Your task to perform on an android device: Do I have any events this weekend? Image 0: 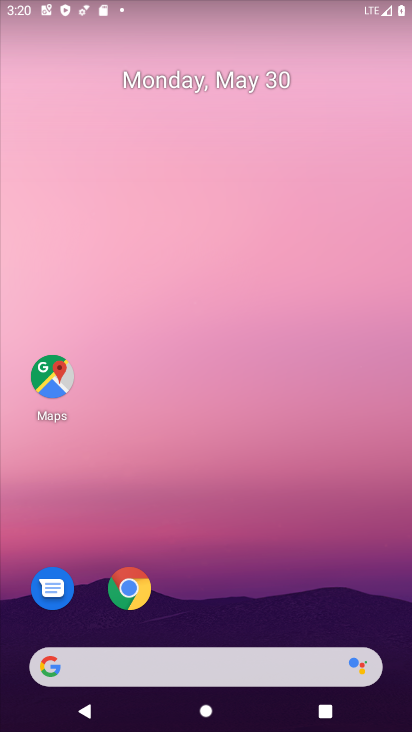
Step 0: drag from (286, 463) to (221, 6)
Your task to perform on an android device: Do I have any events this weekend? Image 1: 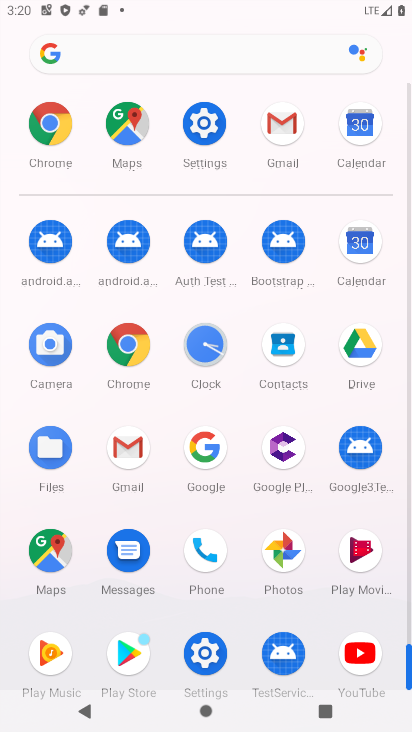
Step 1: drag from (11, 555) to (24, 240)
Your task to perform on an android device: Do I have any events this weekend? Image 2: 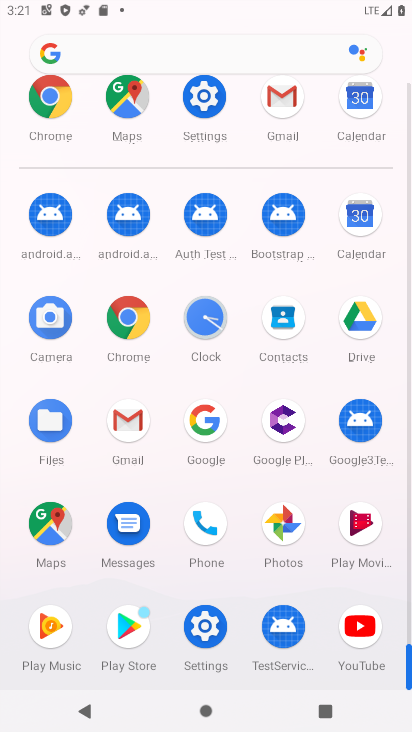
Step 2: click (357, 215)
Your task to perform on an android device: Do I have any events this weekend? Image 3: 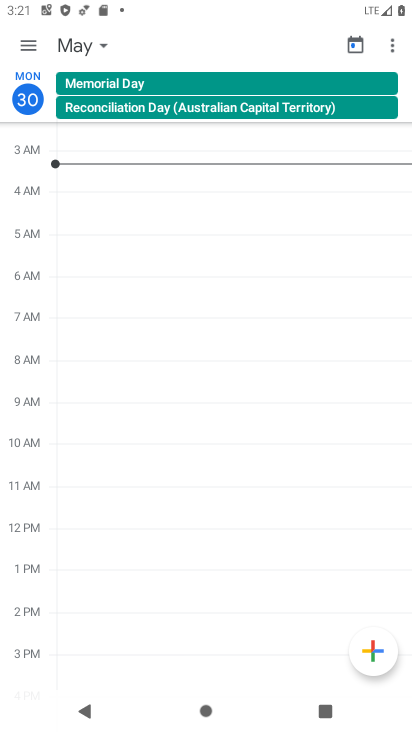
Step 3: click (28, 47)
Your task to perform on an android device: Do I have any events this weekend? Image 4: 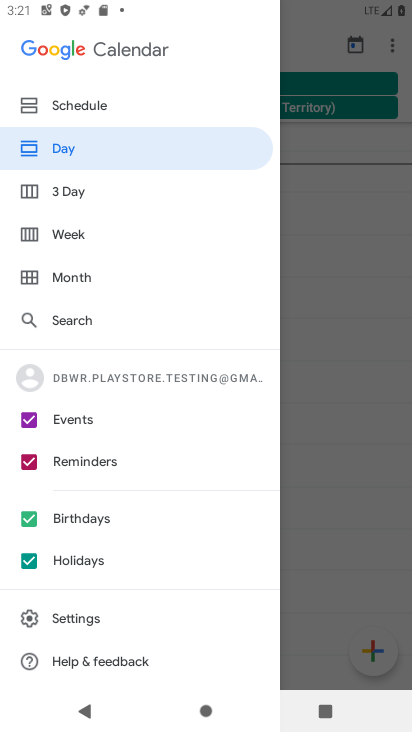
Step 4: click (81, 236)
Your task to perform on an android device: Do I have any events this weekend? Image 5: 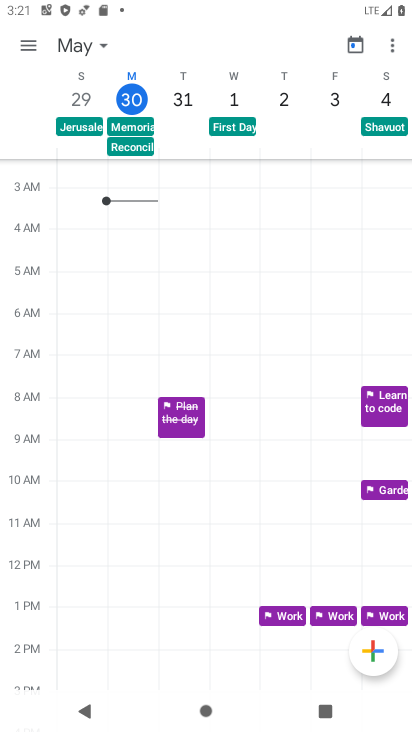
Step 5: click (378, 97)
Your task to perform on an android device: Do I have any events this weekend? Image 6: 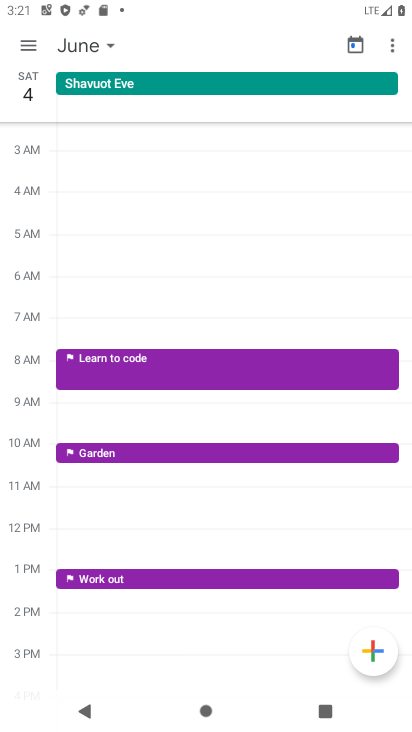
Step 6: task complete